Your task to perform on an android device: Open my contact list Image 0: 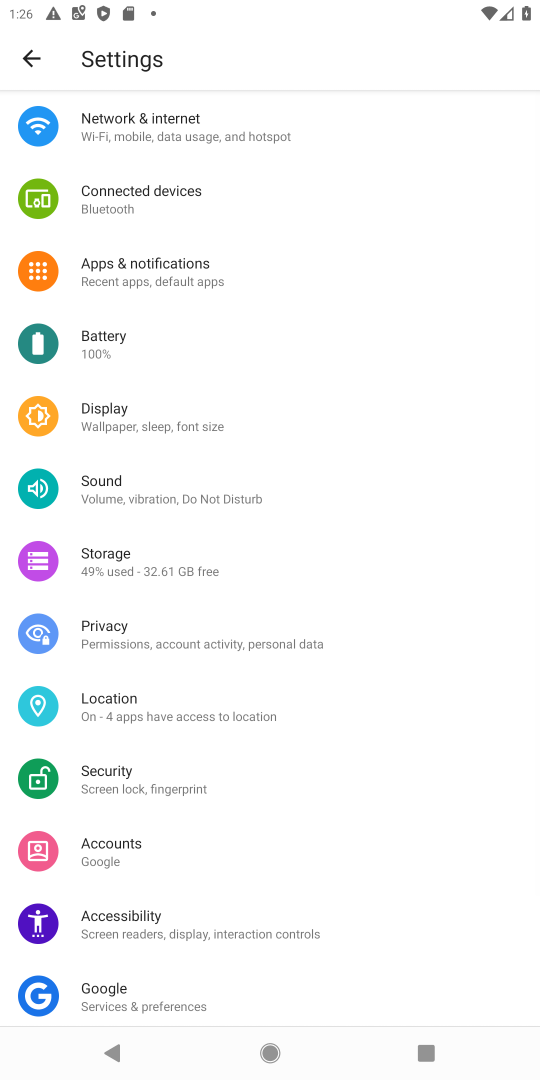
Step 0: press home button
Your task to perform on an android device: Open my contact list Image 1: 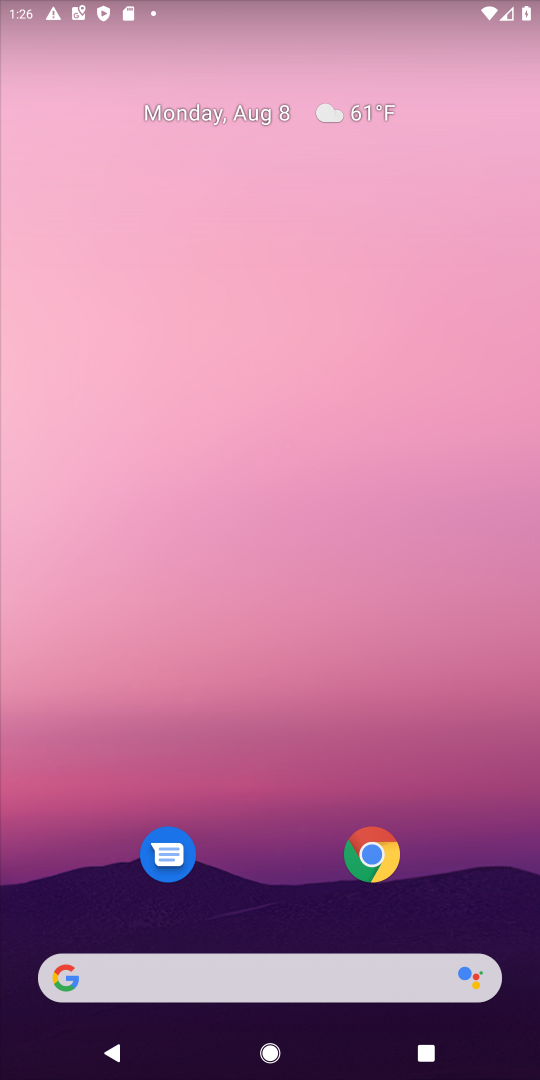
Step 1: drag from (26, 1039) to (410, 13)
Your task to perform on an android device: Open my contact list Image 2: 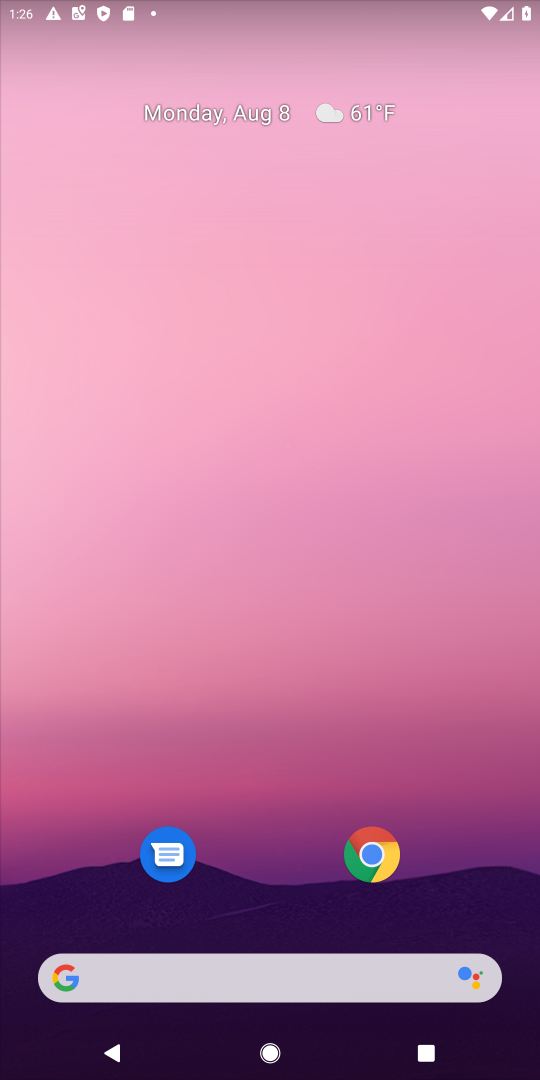
Step 2: drag from (15, 985) to (515, 15)
Your task to perform on an android device: Open my contact list Image 3: 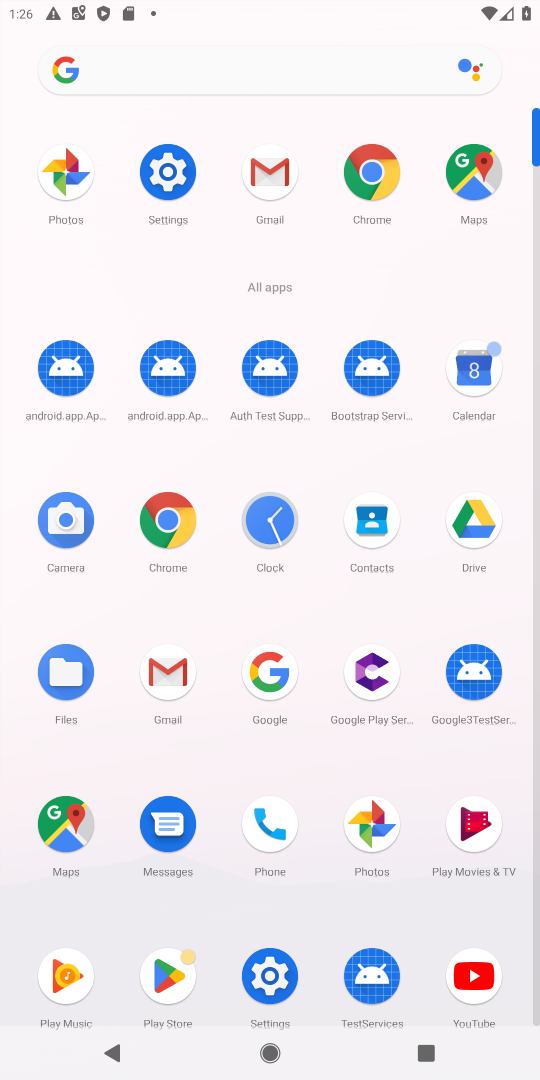
Step 3: click (265, 829)
Your task to perform on an android device: Open my contact list Image 4: 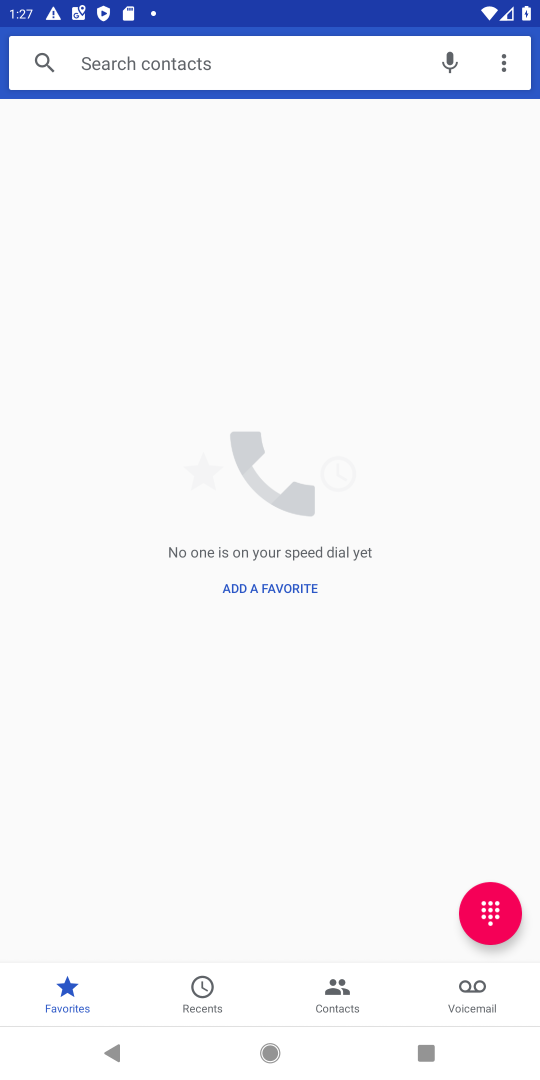
Step 4: click (349, 996)
Your task to perform on an android device: Open my contact list Image 5: 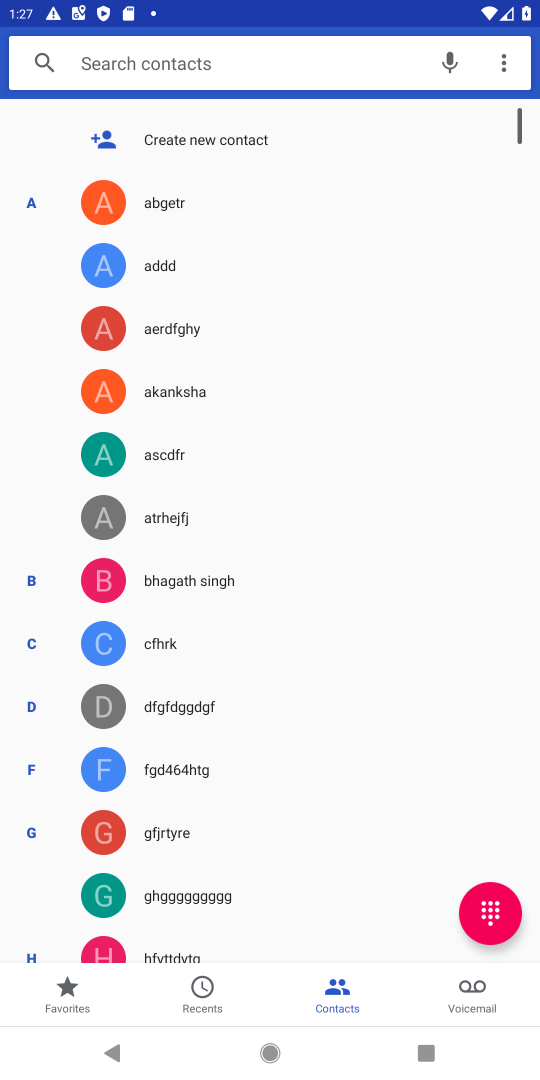
Step 5: task complete